Your task to perform on an android device: open sync settings in chrome Image 0: 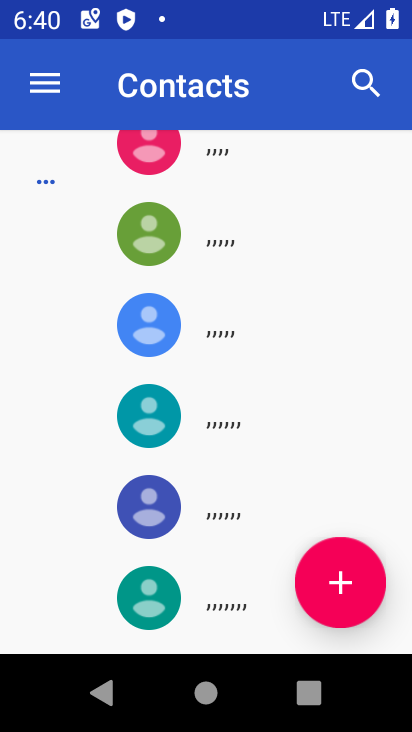
Step 0: press home button
Your task to perform on an android device: open sync settings in chrome Image 1: 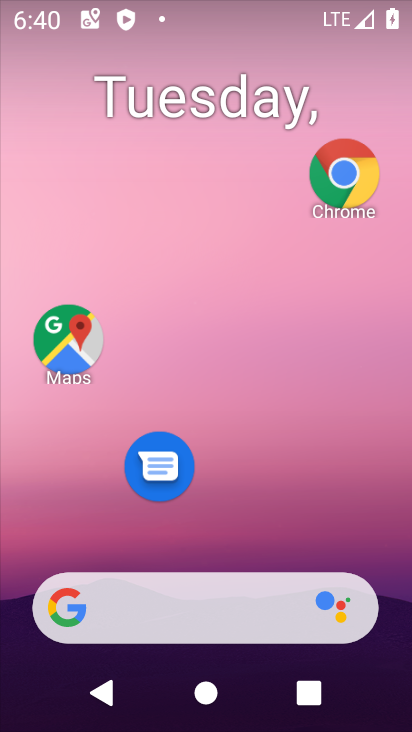
Step 1: click (331, 175)
Your task to perform on an android device: open sync settings in chrome Image 2: 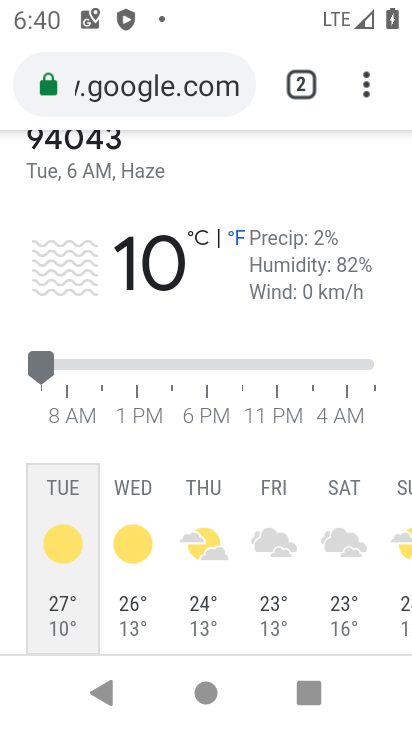
Step 2: drag from (382, 70) to (208, 511)
Your task to perform on an android device: open sync settings in chrome Image 3: 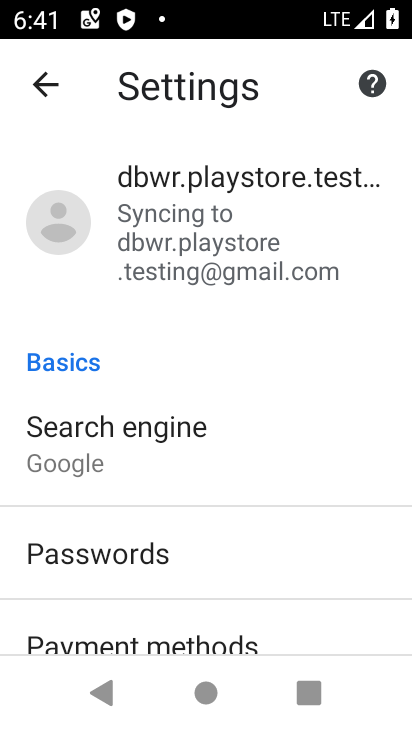
Step 3: click (282, 244)
Your task to perform on an android device: open sync settings in chrome Image 4: 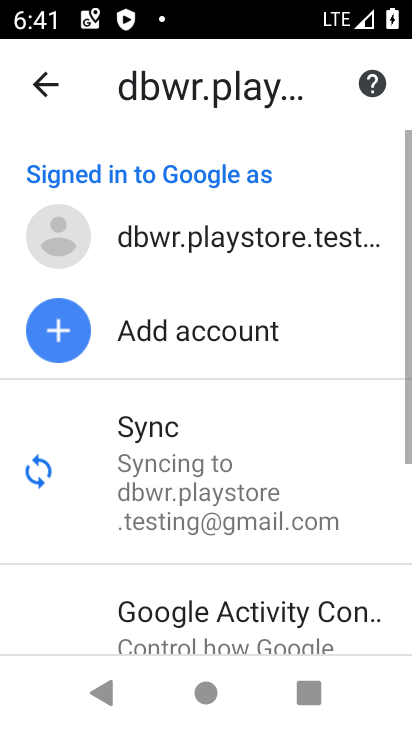
Step 4: click (199, 435)
Your task to perform on an android device: open sync settings in chrome Image 5: 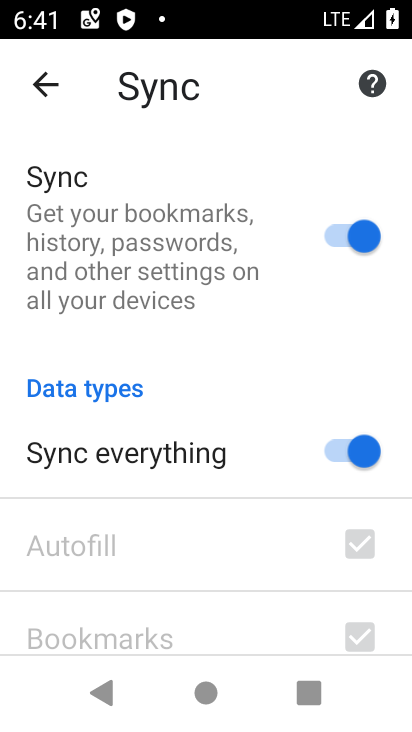
Step 5: task complete